Your task to perform on an android device: check battery use Image 0: 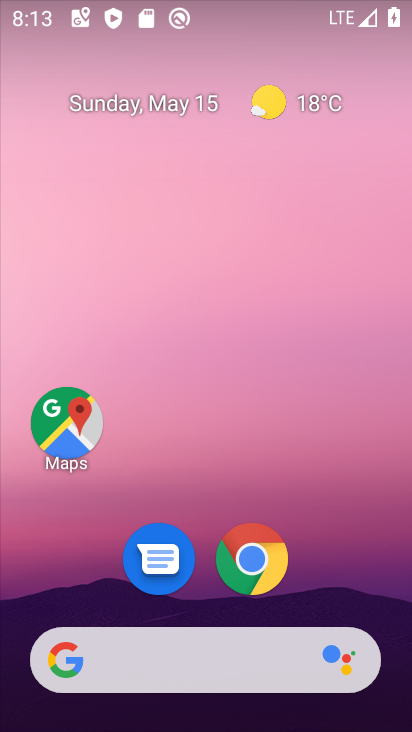
Step 0: drag from (343, 542) to (137, 45)
Your task to perform on an android device: check battery use Image 1: 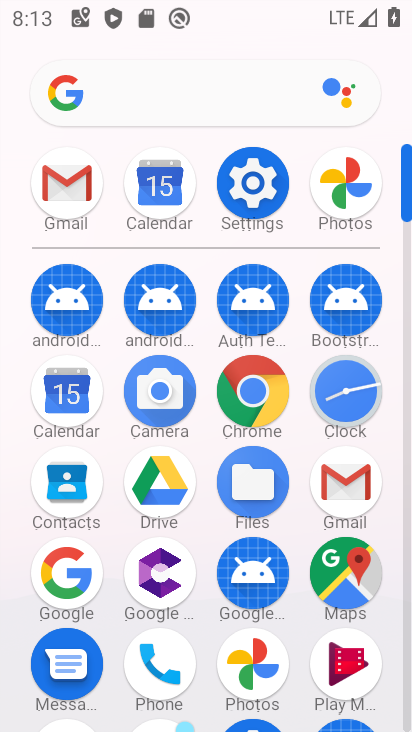
Step 1: click (245, 173)
Your task to perform on an android device: check battery use Image 2: 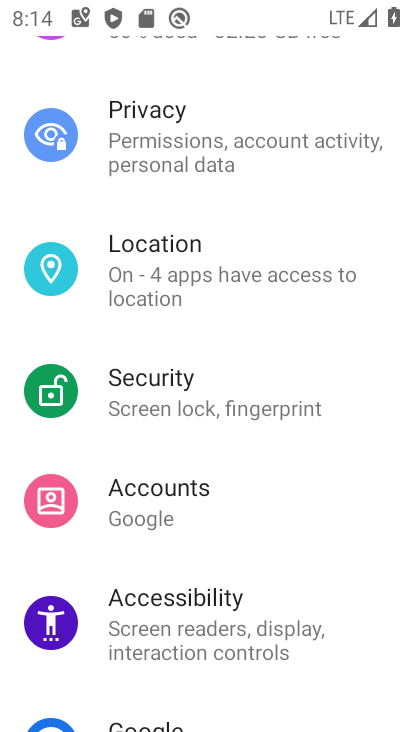
Step 2: drag from (206, 320) to (214, 685)
Your task to perform on an android device: check battery use Image 3: 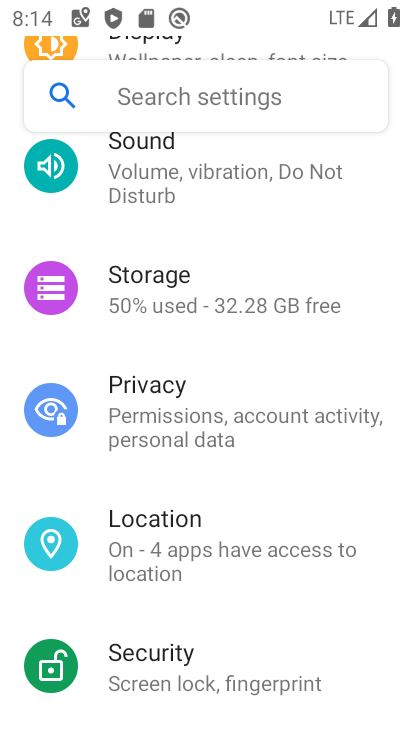
Step 3: drag from (166, 227) to (169, 528)
Your task to perform on an android device: check battery use Image 4: 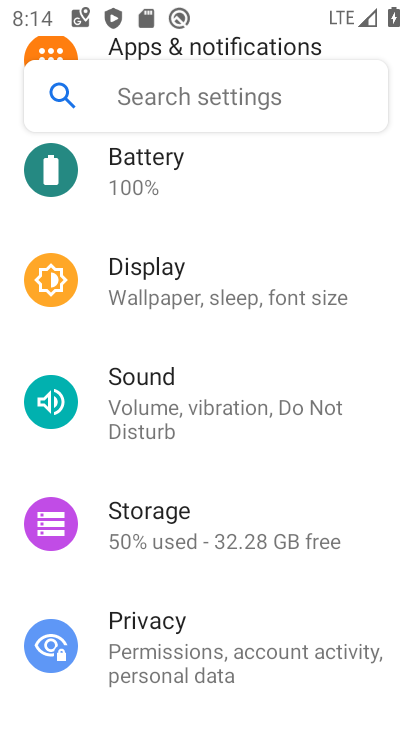
Step 4: click (149, 155)
Your task to perform on an android device: check battery use Image 5: 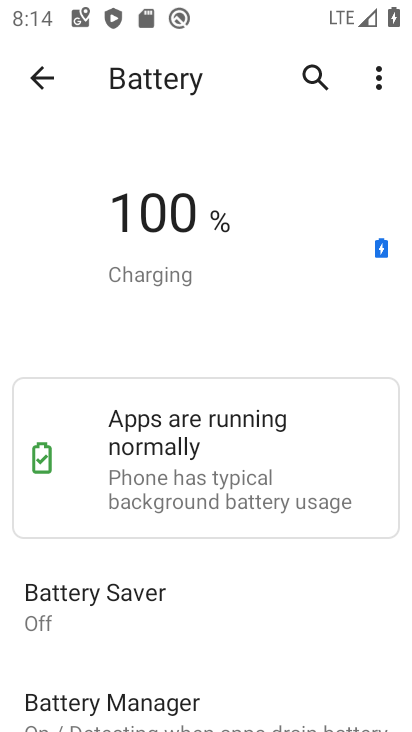
Step 5: task complete